Your task to perform on an android device: When is my next appointment? Image 0: 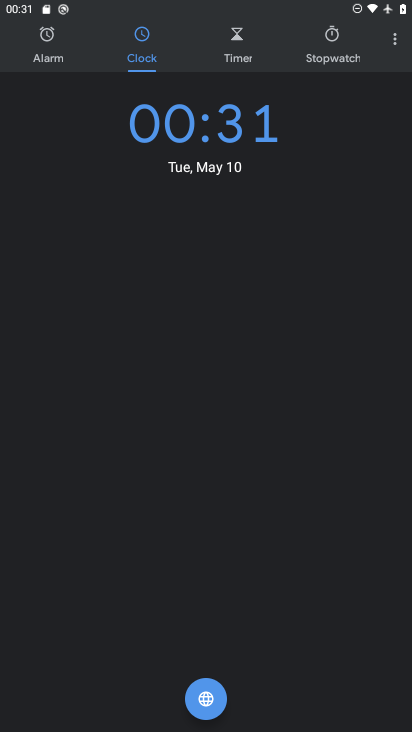
Step 0: press home button
Your task to perform on an android device: When is my next appointment? Image 1: 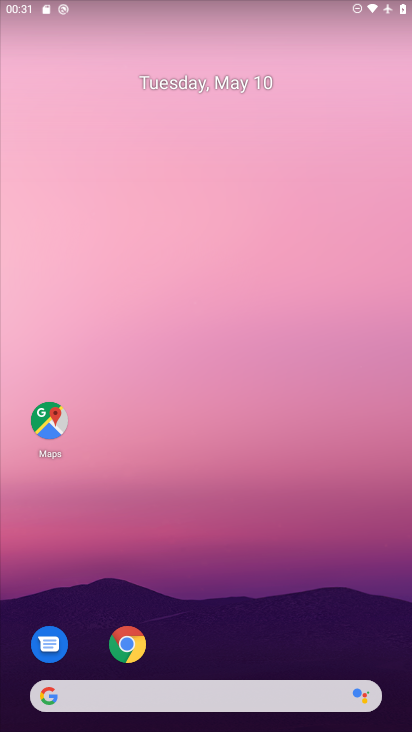
Step 1: drag from (190, 626) to (206, 221)
Your task to perform on an android device: When is my next appointment? Image 2: 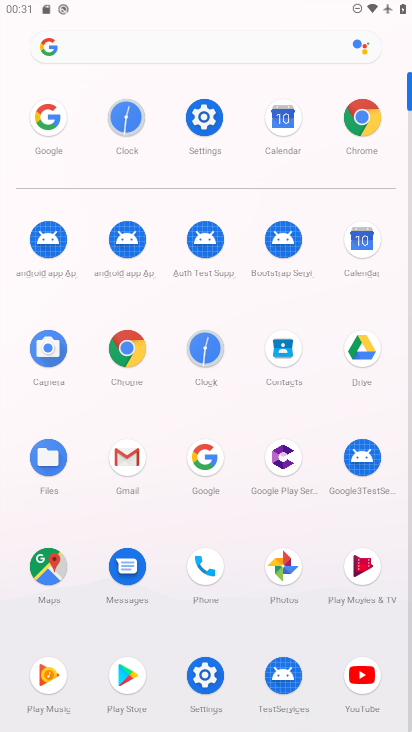
Step 2: click (352, 244)
Your task to perform on an android device: When is my next appointment? Image 3: 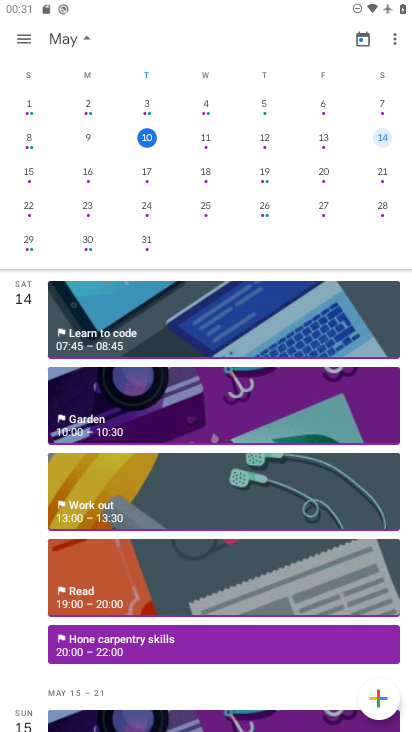
Step 3: task complete